Your task to perform on an android device: install app "Grab" Image 0: 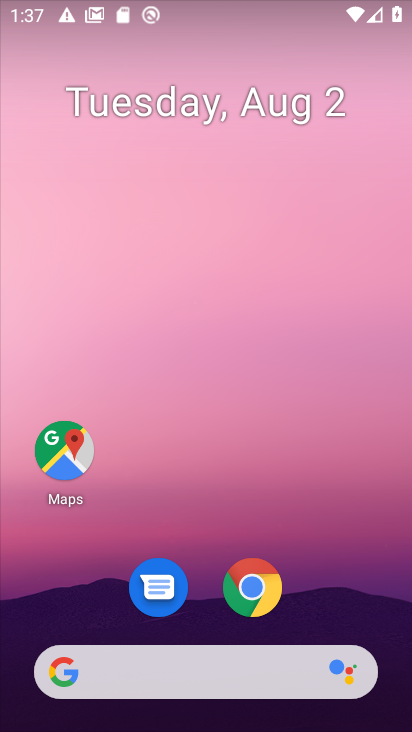
Step 0: drag from (210, 552) to (154, 74)
Your task to perform on an android device: install app "Grab" Image 1: 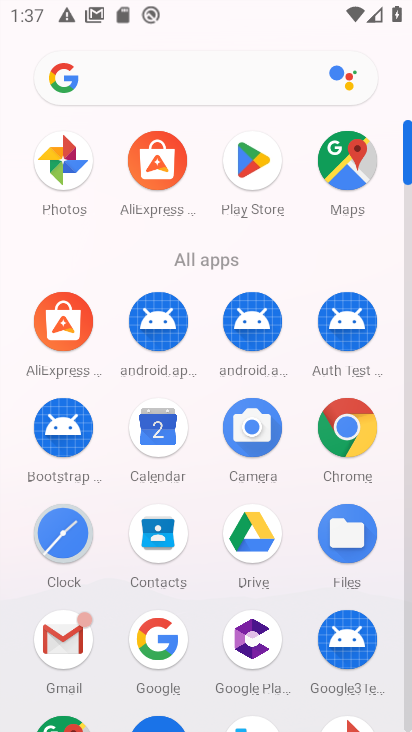
Step 1: click (236, 143)
Your task to perform on an android device: install app "Grab" Image 2: 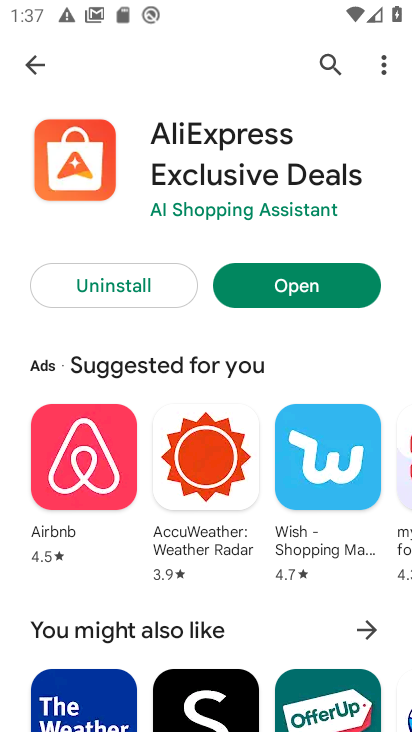
Step 2: click (326, 67)
Your task to perform on an android device: install app "Grab" Image 3: 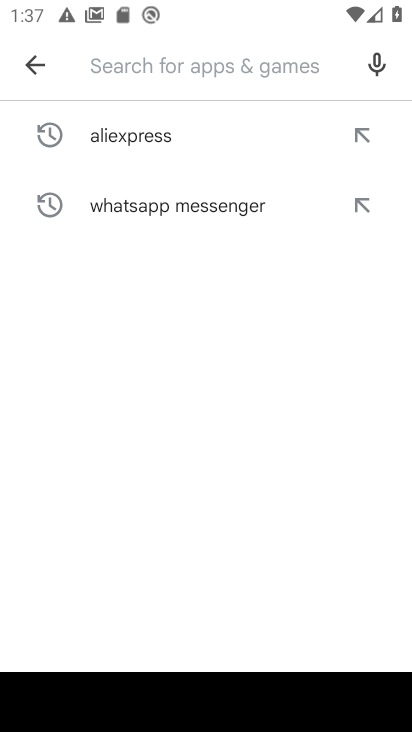
Step 3: type "Grab"
Your task to perform on an android device: install app "Grab" Image 4: 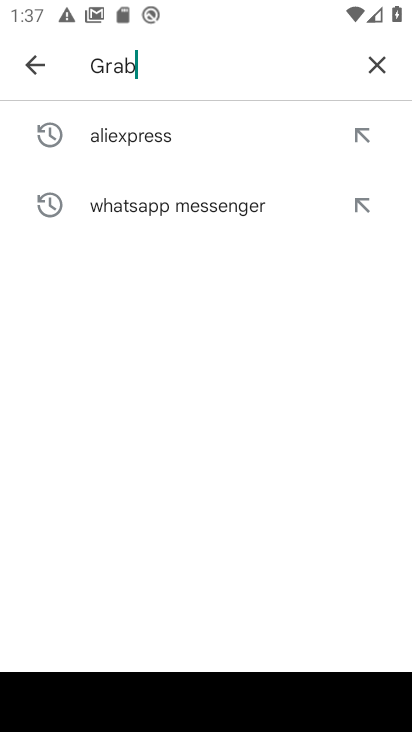
Step 4: type ""
Your task to perform on an android device: install app "Grab" Image 5: 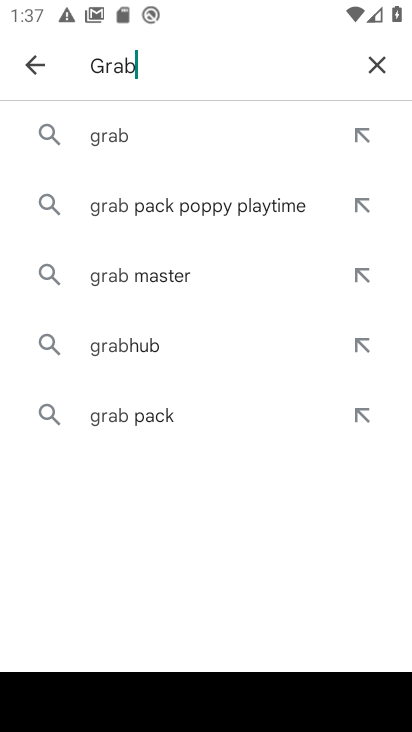
Step 5: click (81, 133)
Your task to perform on an android device: install app "Grab" Image 6: 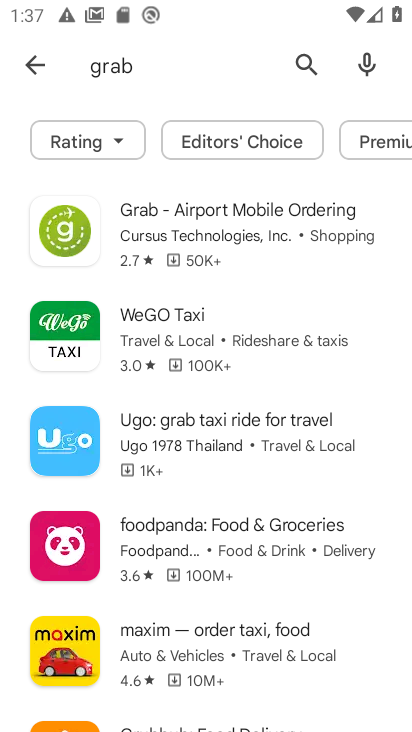
Step 6: click (198, 203)
Your task to perform on an android device: install app "Grab" Image 7: 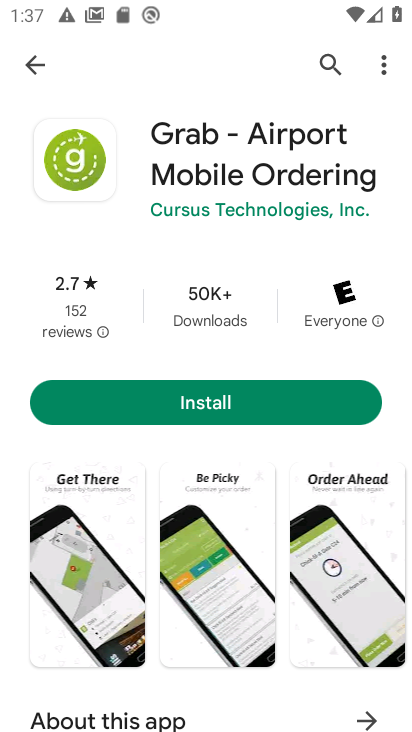
Step 7: click (245, 394)
Your task to perform on an android device: install app "Grab" Image 8: 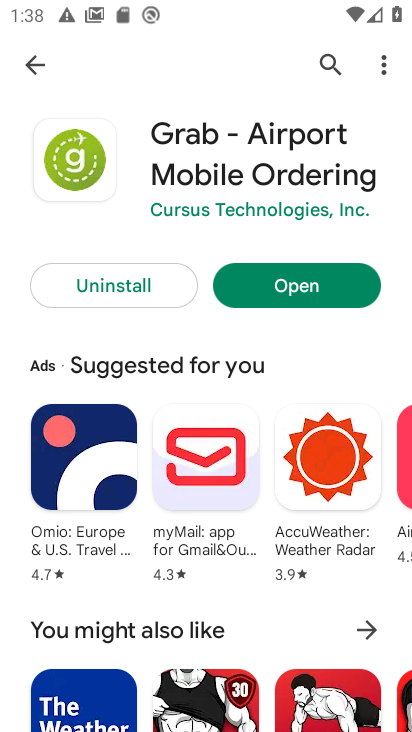
Step 8: task complete